Your task to perform on an android device: Check the weather Image 0: 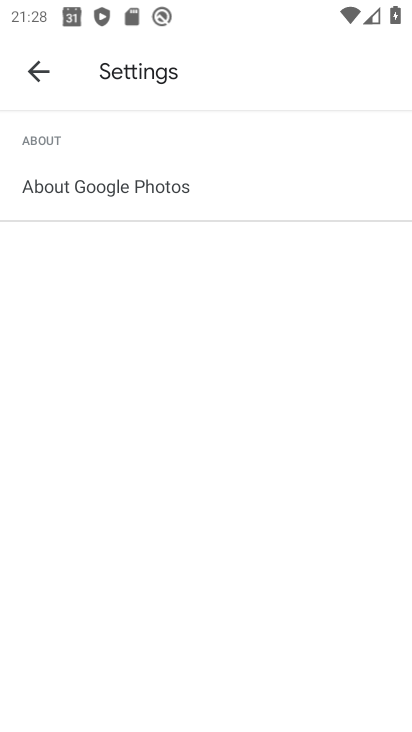
Step 0: press home button
Your task to perform on an android device: Check the weather Image 1: 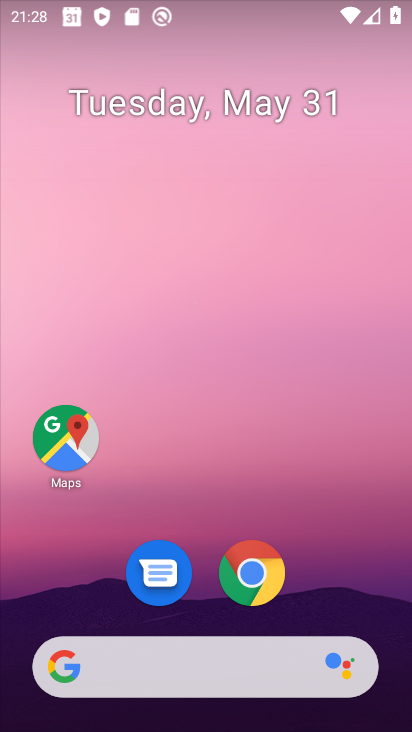
Step 1: click (257, 571)
Your task to perform on an android device: Check the weather Image 2: 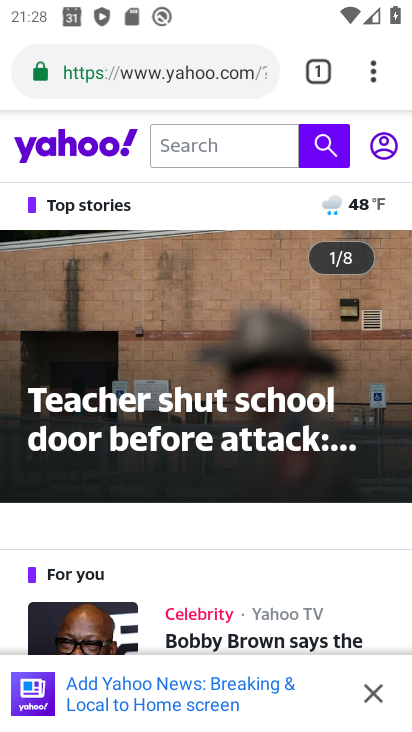
Step 2: click (208, 75)
Your task to perform on an android device: Check the weather Image 3: 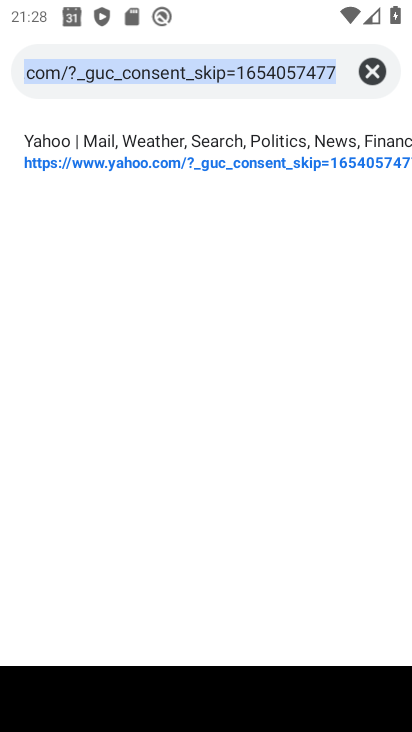
Step 3: type "weather"
Your task to perform on an android device: Check the weather Image 4: 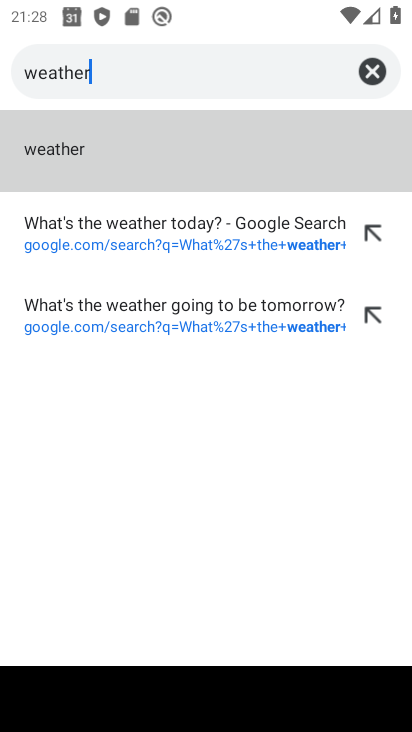
Step 4: click (40, 148)
Your task to perform on an android device: Check the weather Image 5: 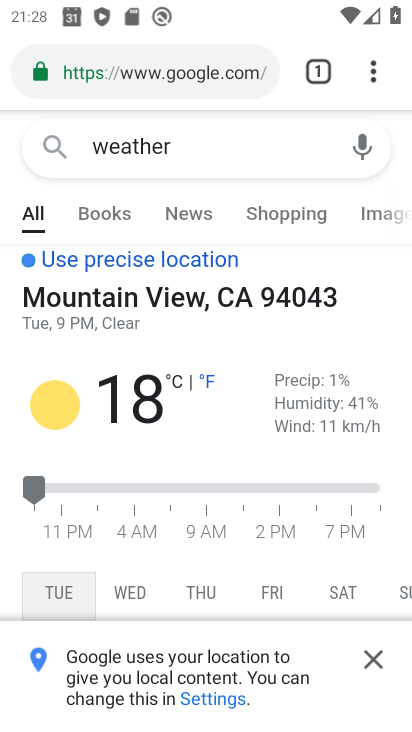
Step 5: task complete